Your task to perform on an android device: Search for "macbook pro" on ebay, select the first entry, and add it to the cart. Image 0: 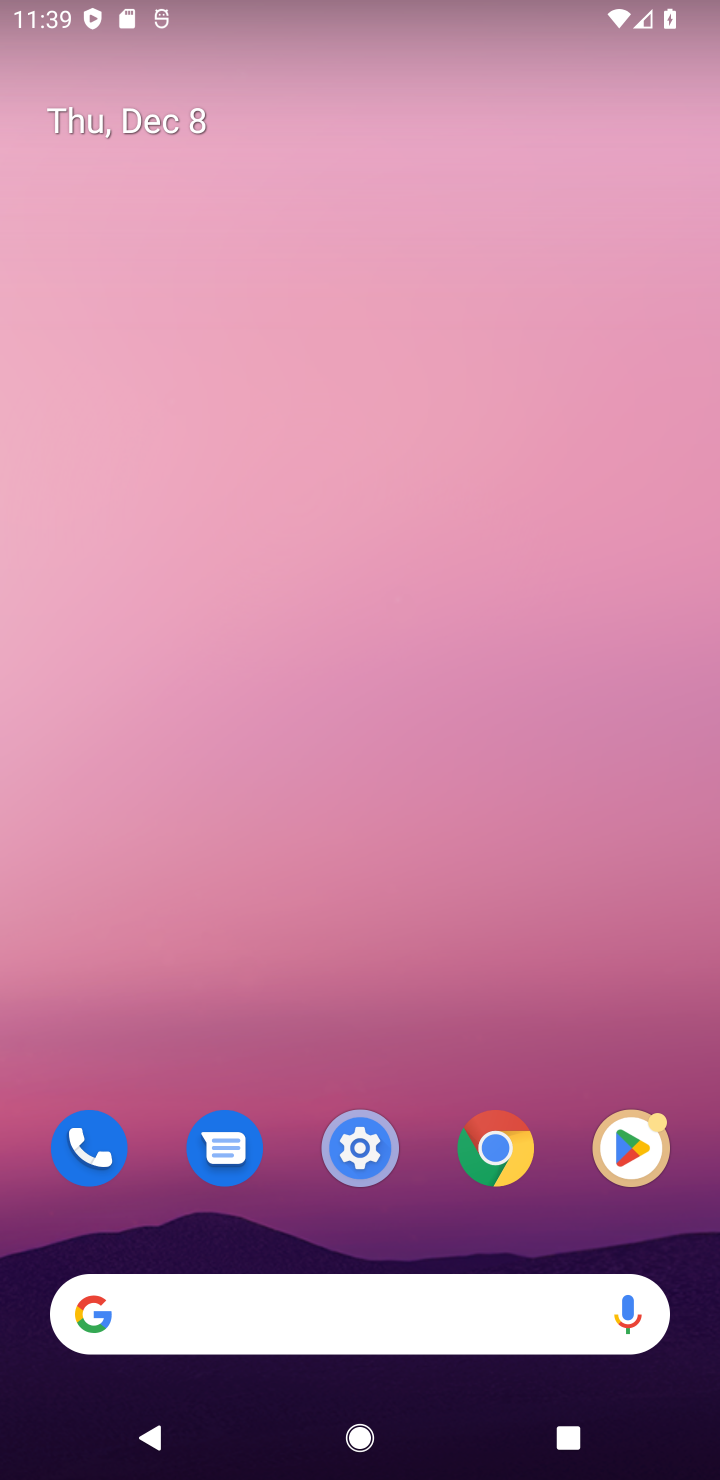
Step 0: click (307, 1293)
Your task to perform on an android device: Search for "macbook pro" on ebay, select the first entry, and add it to the cart. Image 1: 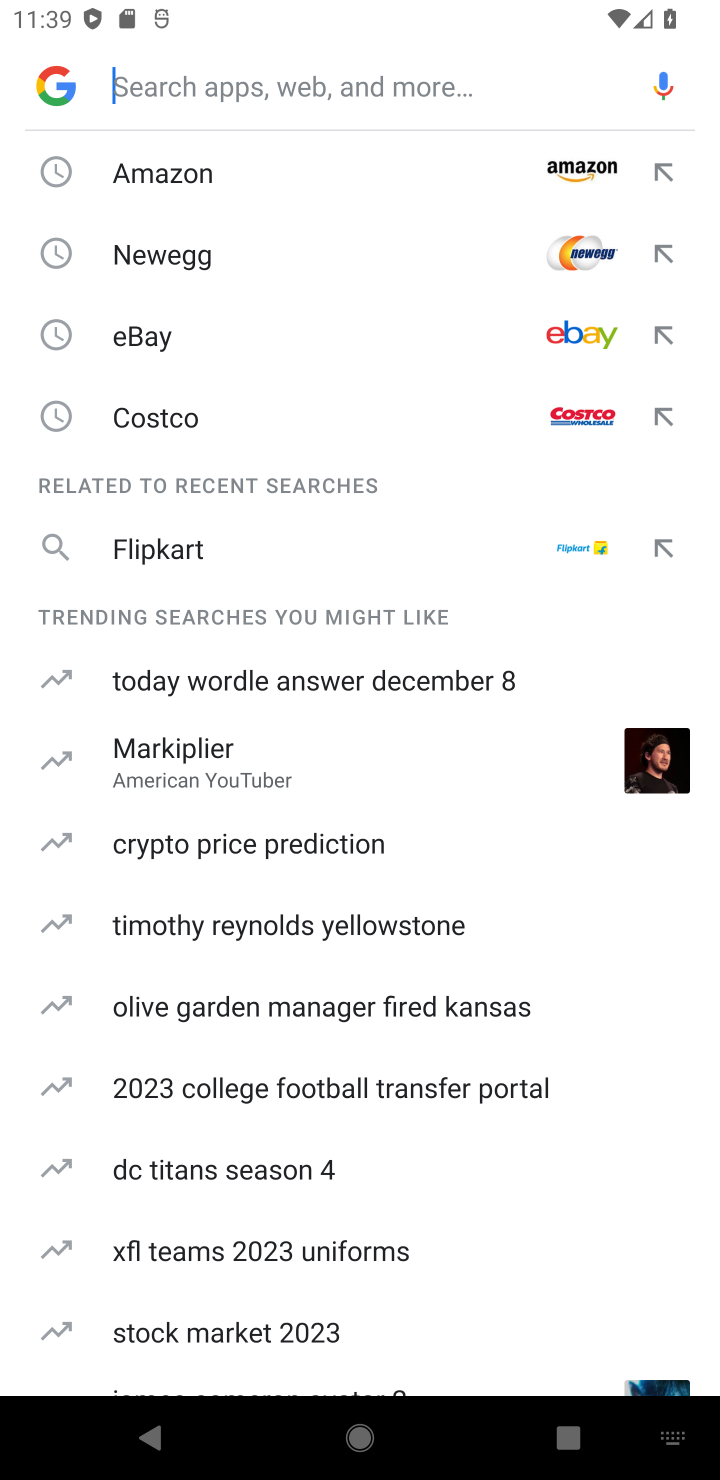
Step 1: click (171, 345)
Your task to perform on an android device: Search for "macbook pro" on ebay, select the first entry, and add it to the cart. Image 2: 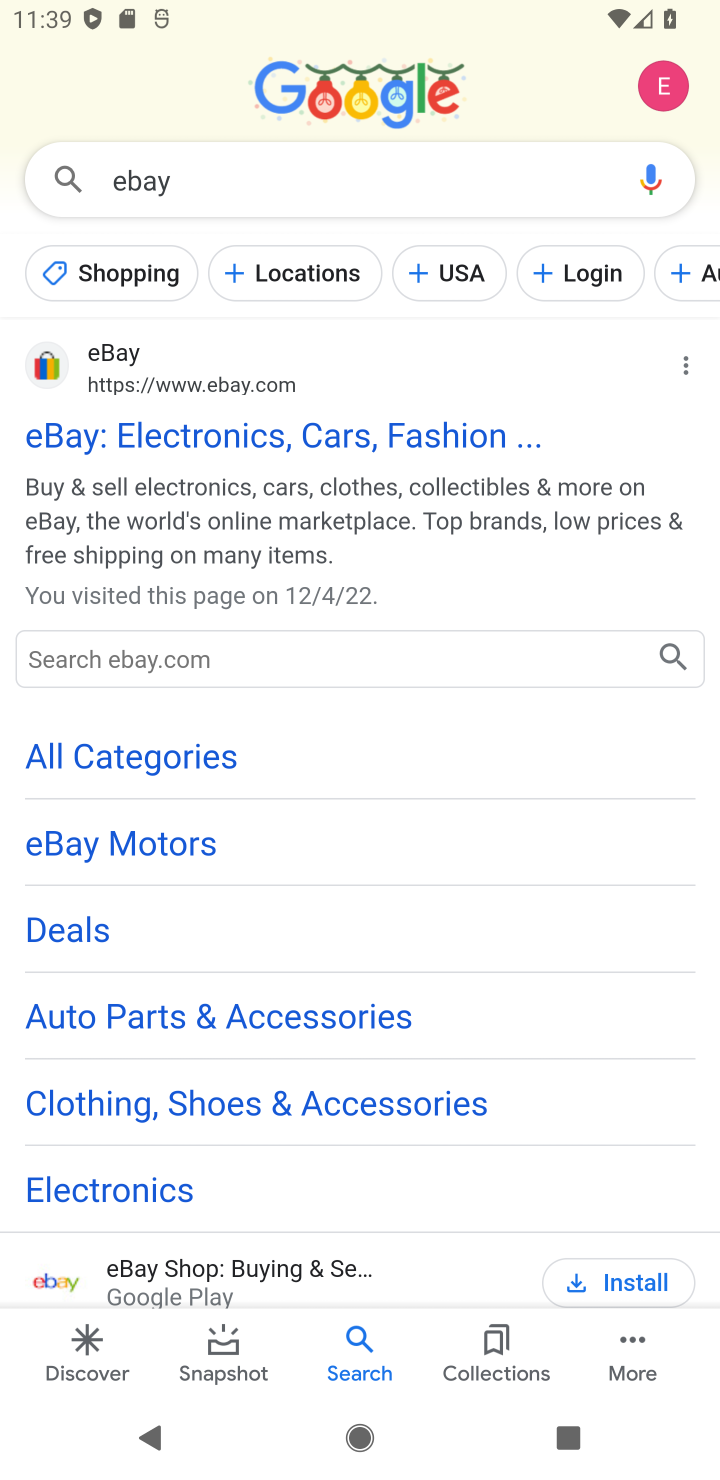
Step 2: click (200, 438)
Your task to perform on an android device: Search for "macbook pro" on ebay, select the first entry, and add it to the cart. Image 3: 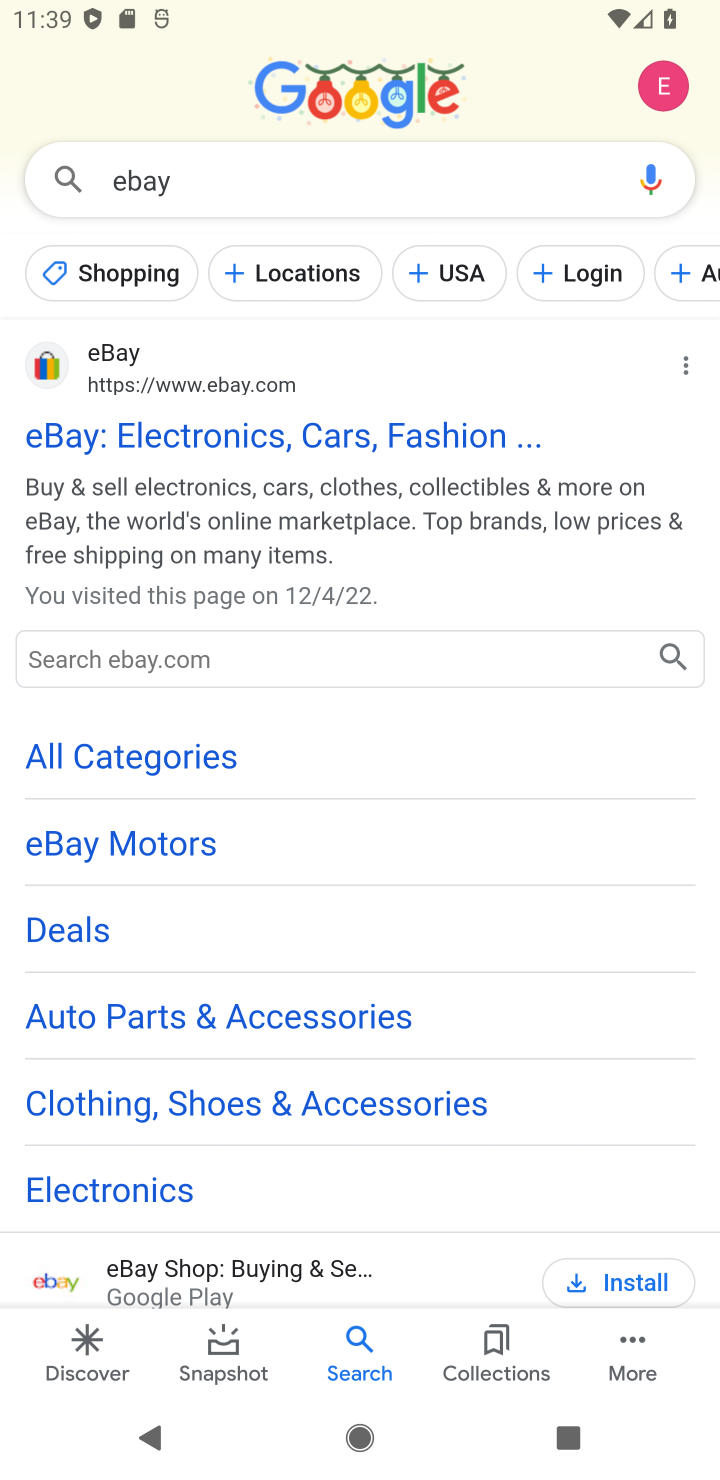
Step 3: type ""
Your task to perform on an android device: Search for "macbook pro" on ebay, select the first entry, and add it to the cart. Image 4: 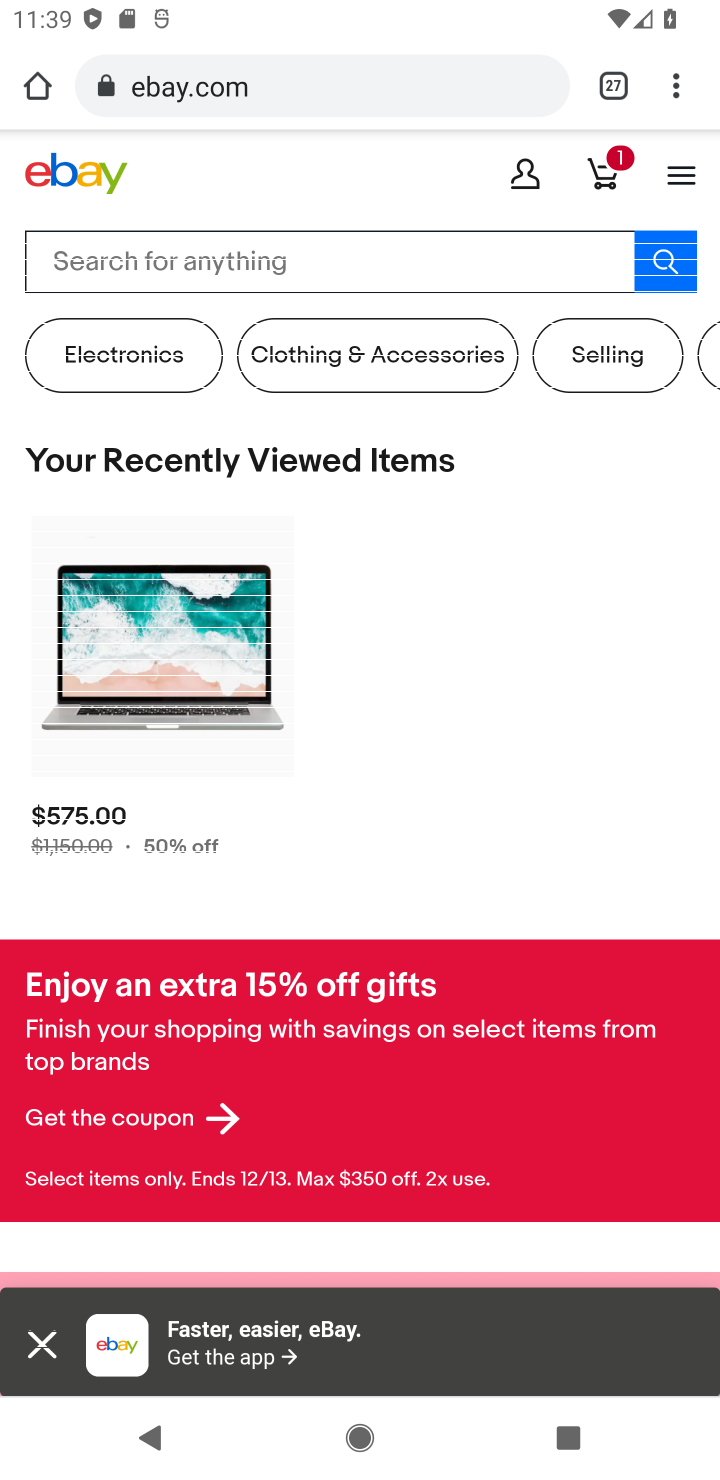
Step 4: click (306, 254)
Your task to perform on an android device: Search for "macbook pro" on ebay, select the first entry, and add it to the cart. Image 5: 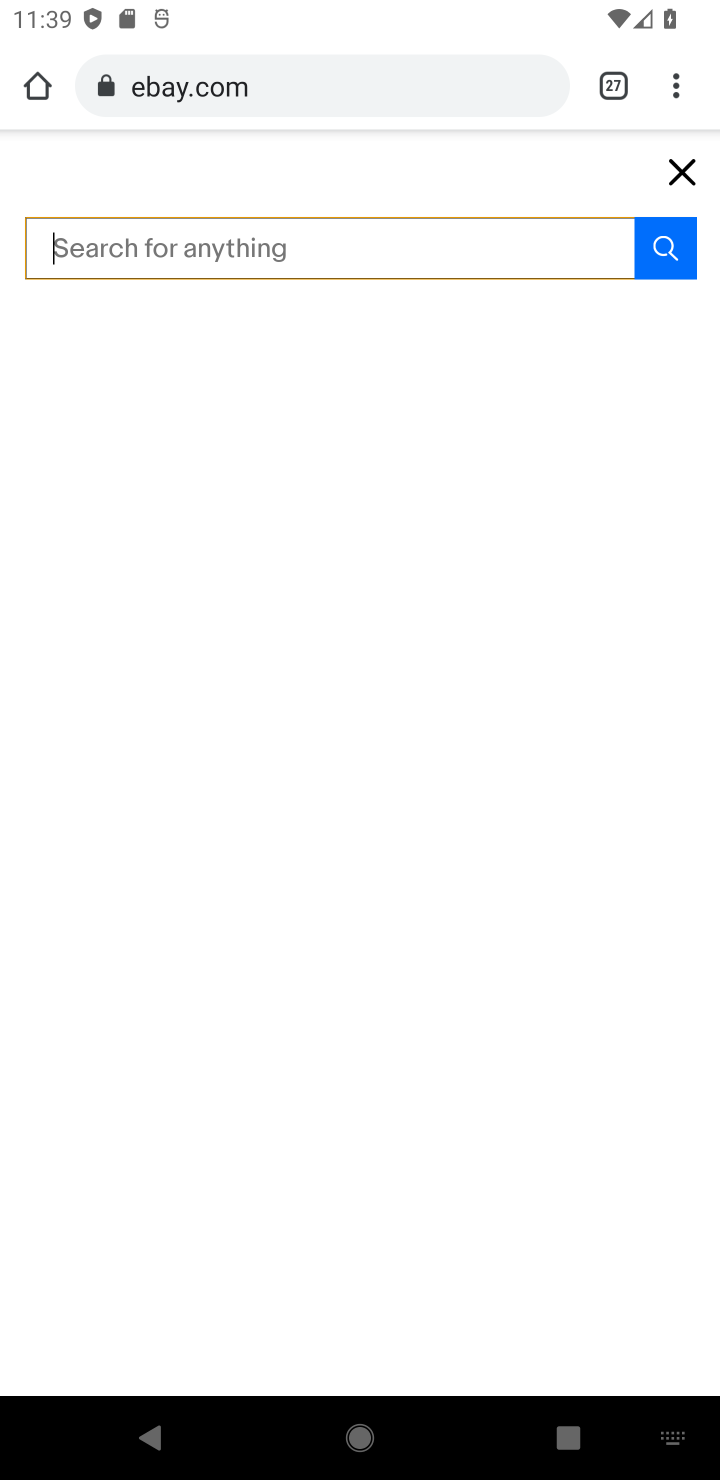
Step 5: type "macbook pro"
Your task to perform on an android device: Search for "macbook pro" on ebay, select the first entry, and add it to the cart. Image 6: 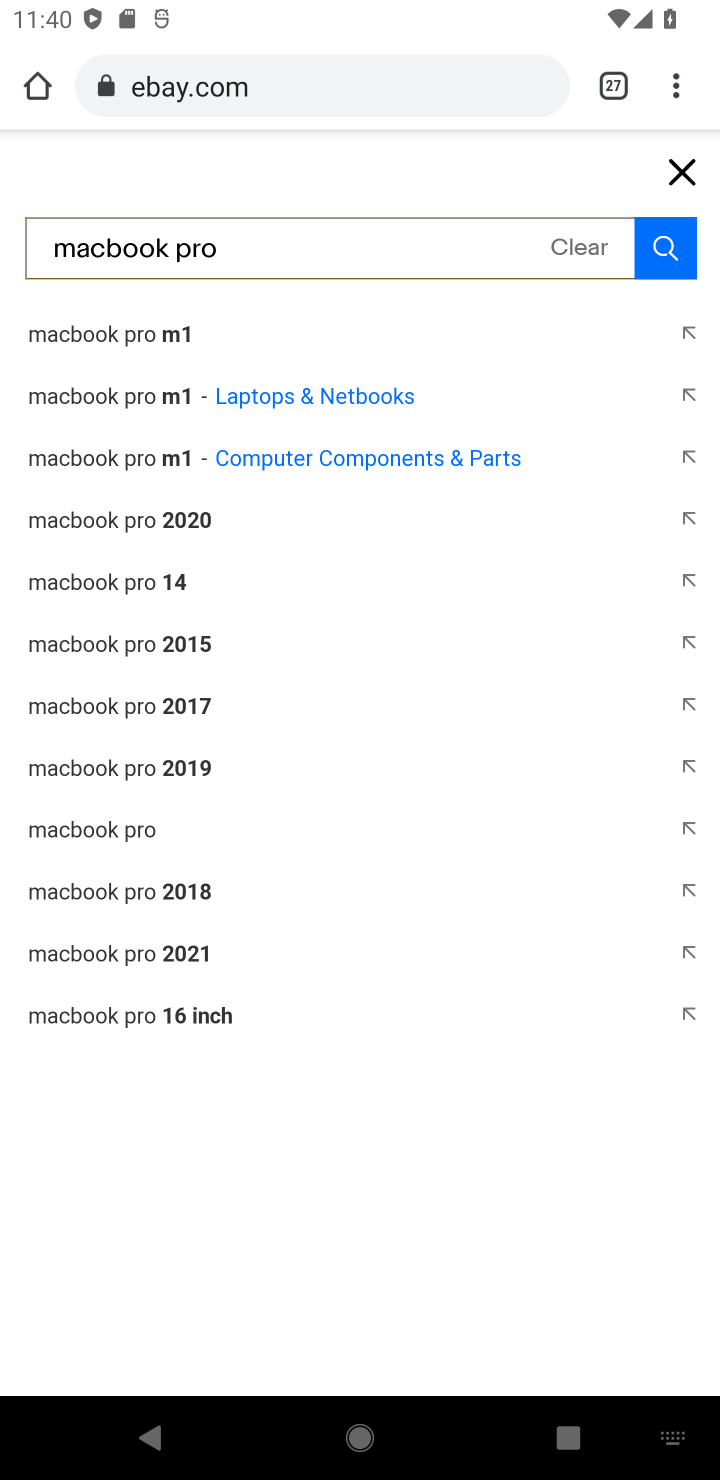
Step 6: click (99, 824)
Your task to perform on an android device: Search for "macbook pro" on ebay, select the first entry, and add it to the cart. Image 7: 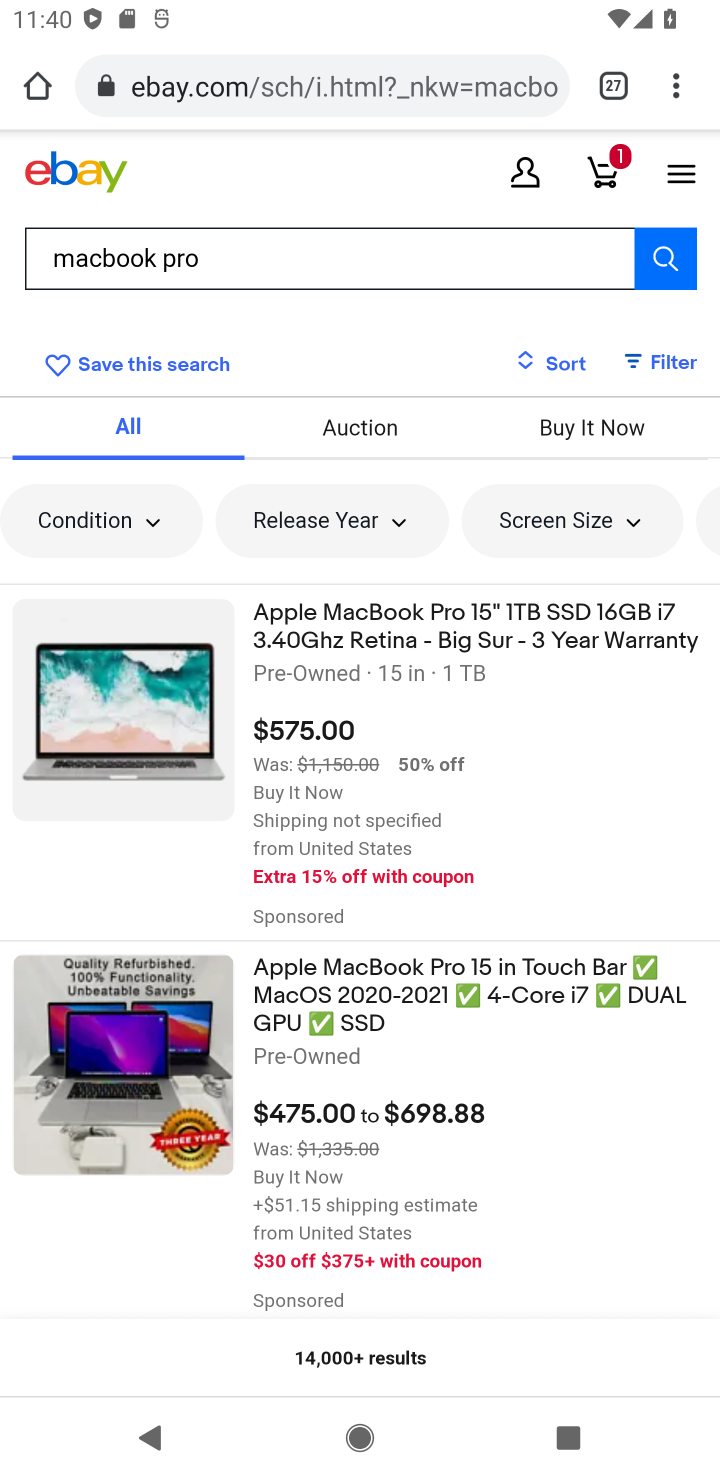
Step 7: click (454, 621)
Your task to perform on an android device: Search for "macbook pro" on ebay, select the first entry, and add it to the cart. Image 8: 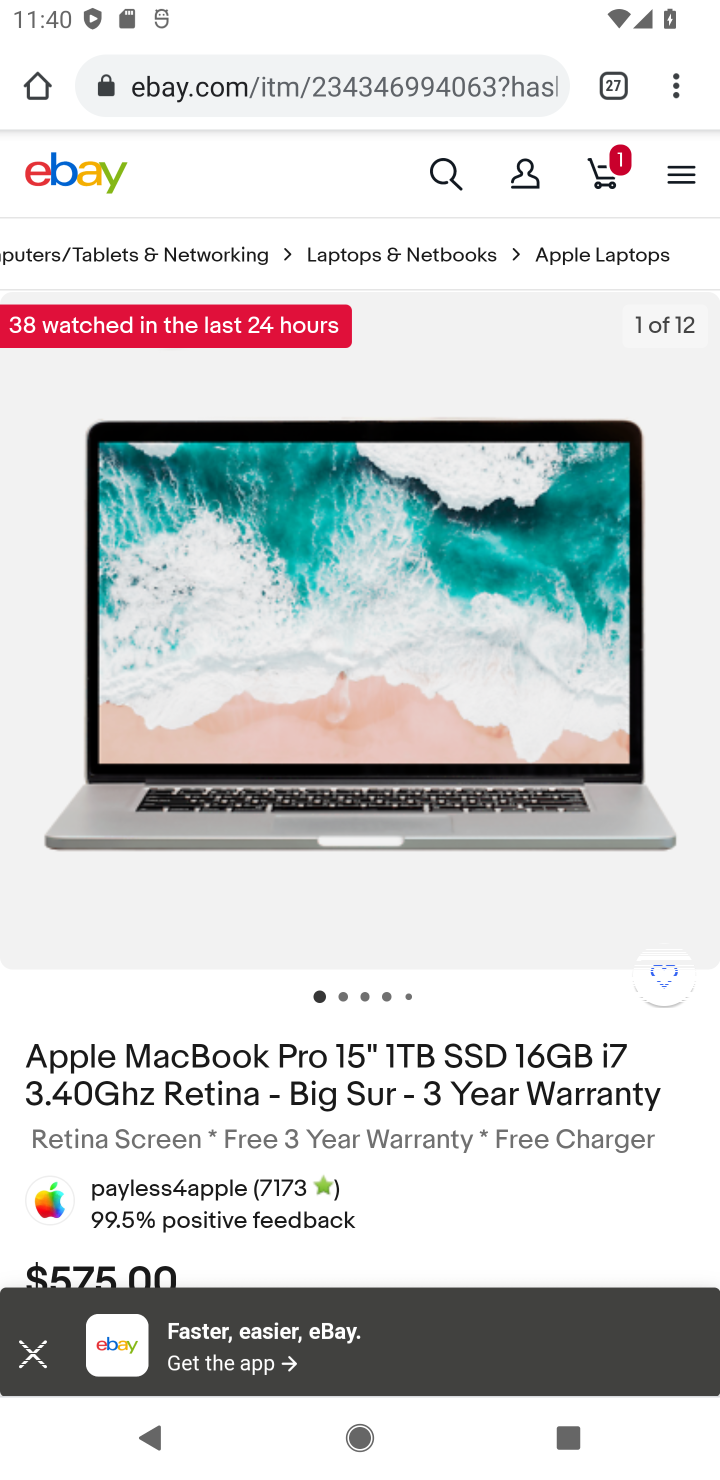
Step 8: task complete